Your task to perform on an android device: Open Wikipedia Image 0: 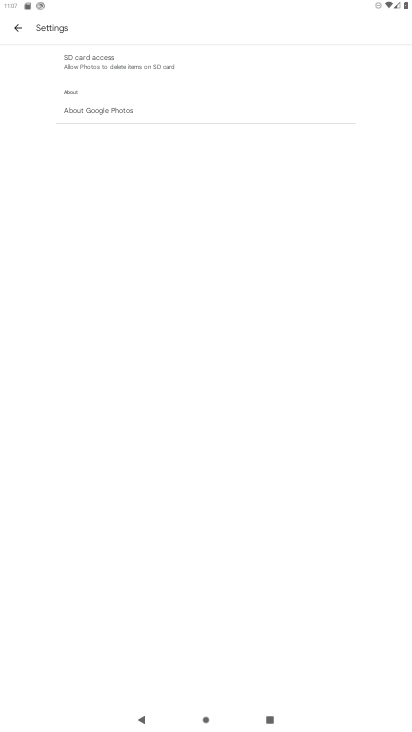
Step 0: press home button
Your task to perform on an android device: Open Wikipedia Image 1: 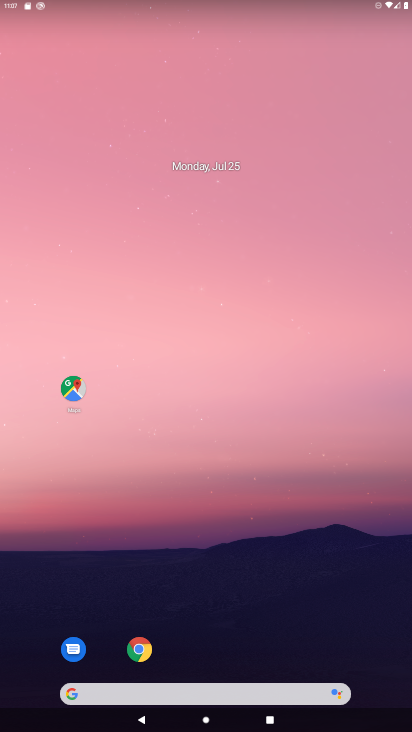
Step 1: click (139, 650)
Your task to perform on an android device: Open Wikipedia Image 2: 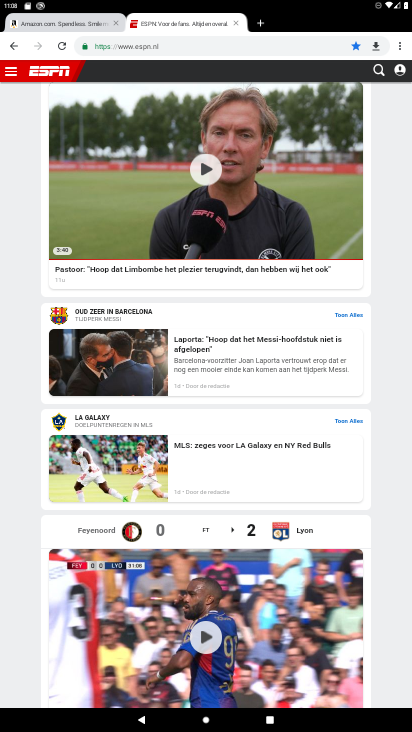
Step 2: click (189, 49)
Your task to perform on an android device: Open Wikipedia Image 3: 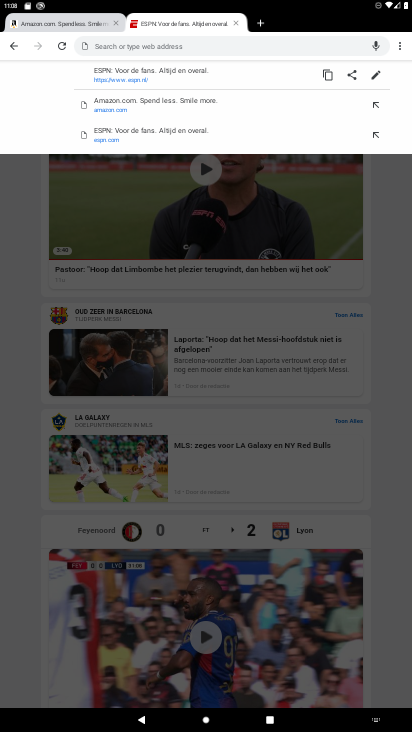
Step 3: type "wikipedia"
Your task to perform on an android device: Open Wikipedia Image 4: 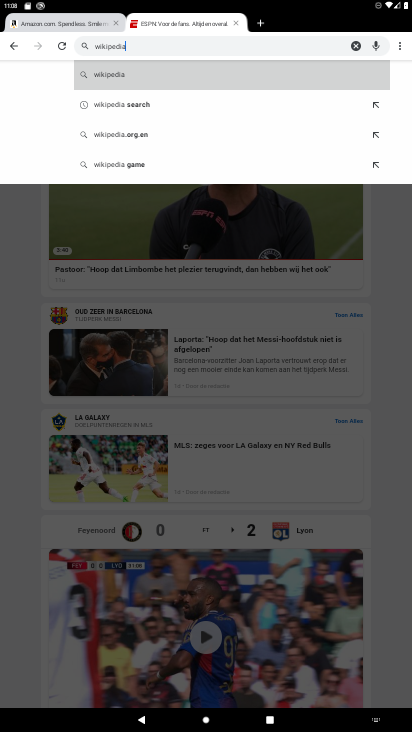
Step 4: click (113, 75)
Your task to perform on an android device: Open Wikipedia Image 5: 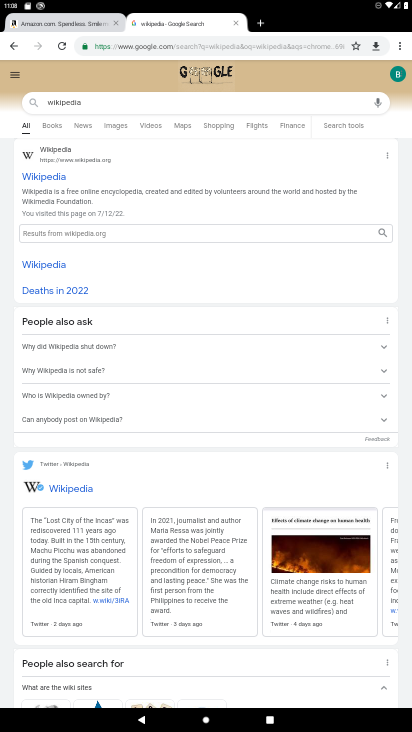
Step 5: click (35, 173)
Your task to perform on an android device: Open Wikipedia Image 6: 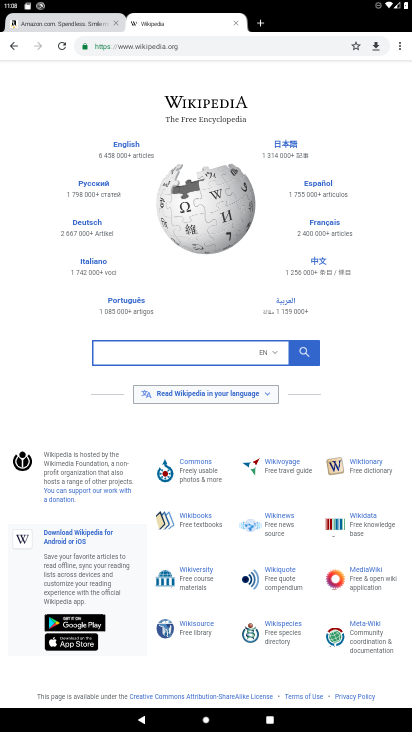
Step 6: task complete